Your task to perform on an android device: clear history in the chrome app Image 0: 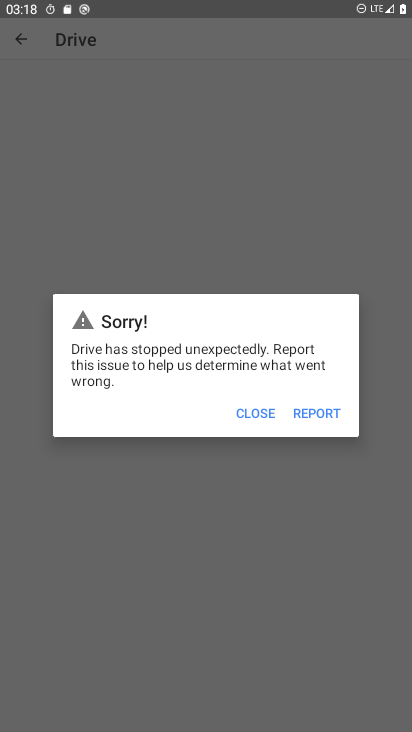
Step 0: press home button
Your task to perform on an android device: clear history in the chrome app Image 1: 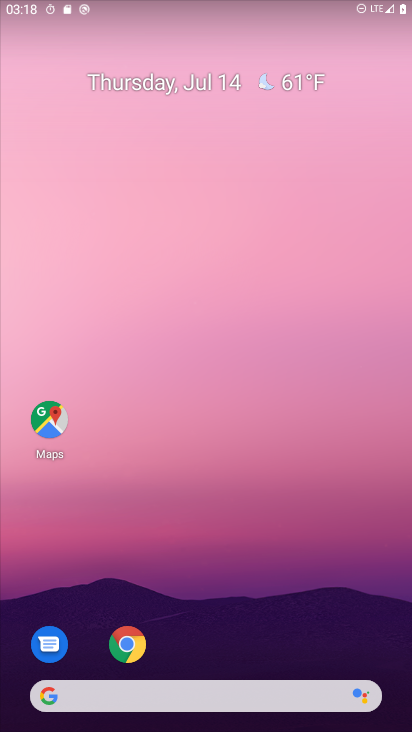
Step 1: click (127, 642)
Your task to perform on an android device: clear history in the chrome app Image 2: 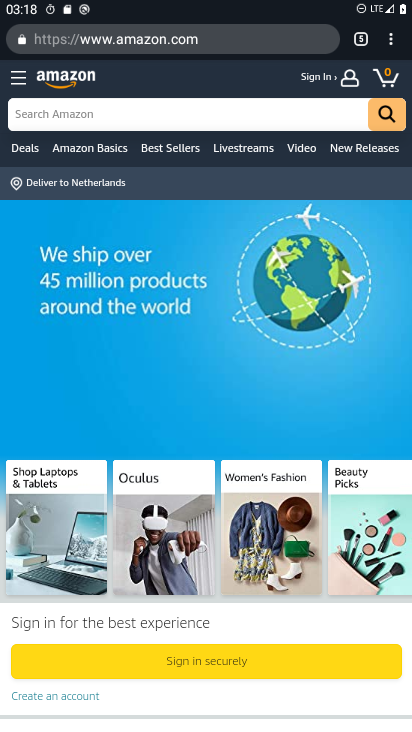
Step 2: drag from (394, 38) to (248, 220)
Your task to perform on an android device: clear history in the chrome app Image 3: 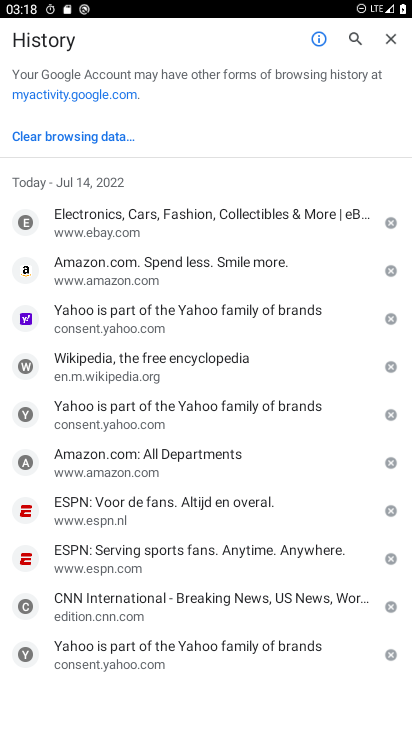
Step 3: click (81, 136)
Your task to perform on an android device: clear history in the chrome app Image 4: 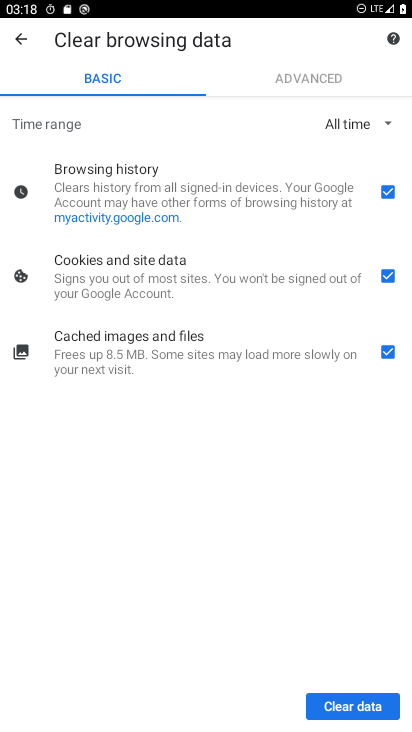
Step 4: click (383, 706)
Your task to perform on an android device: clear history in the chrome app Image 5: 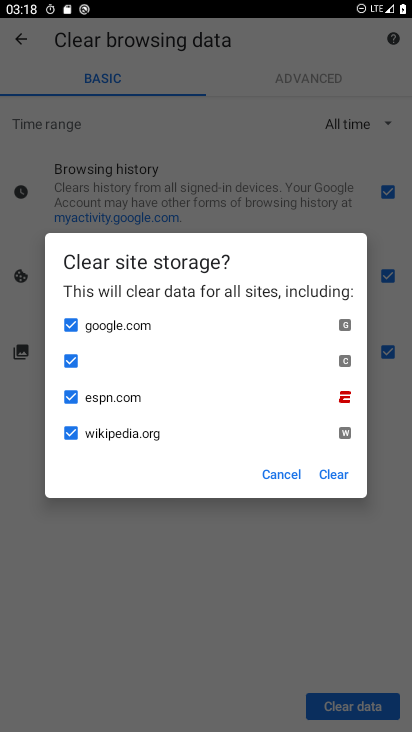
Step 5: click (331, 478)
Your task to perform on an android device: clear history in the chrome app Image 6: 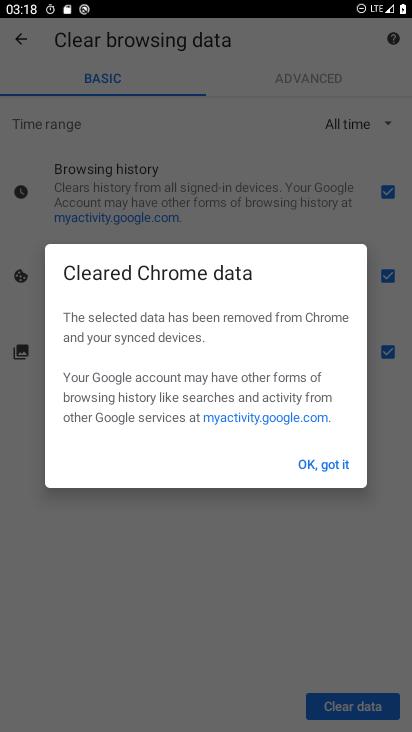
Step 6: task complete